Your task to perform on an android device: turn on showing notifications on the lock screen Image 0: 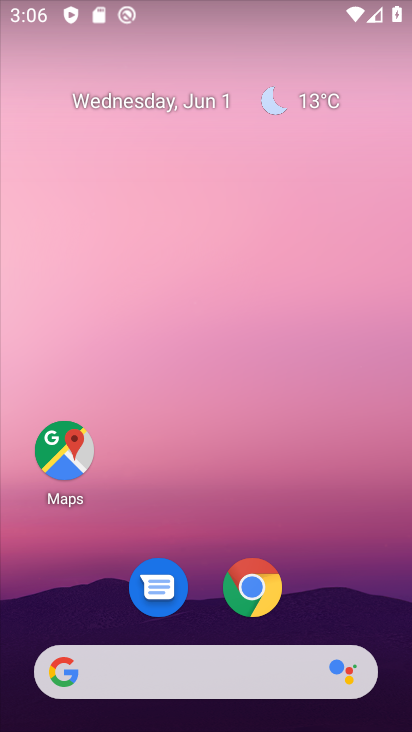
Step 0: drag from (340, 566) to (219, 2)
Your task to perform on an android device: turn on showing notifications on the lock screen Image 1: 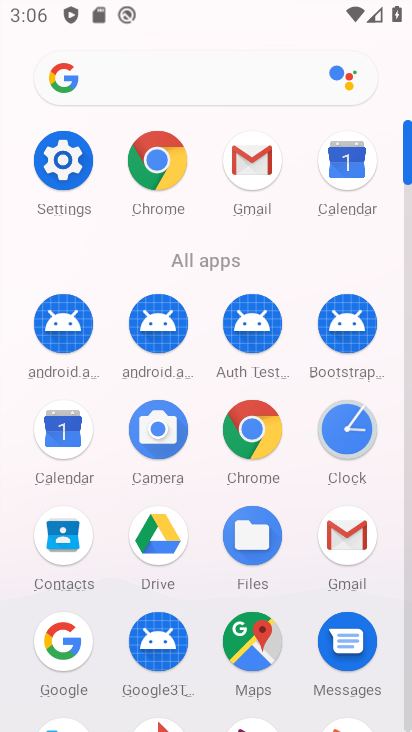
Step 1: click (58, 157)
Your task to perform on an android device: turn on showing notifications on the lock screen Image 2: 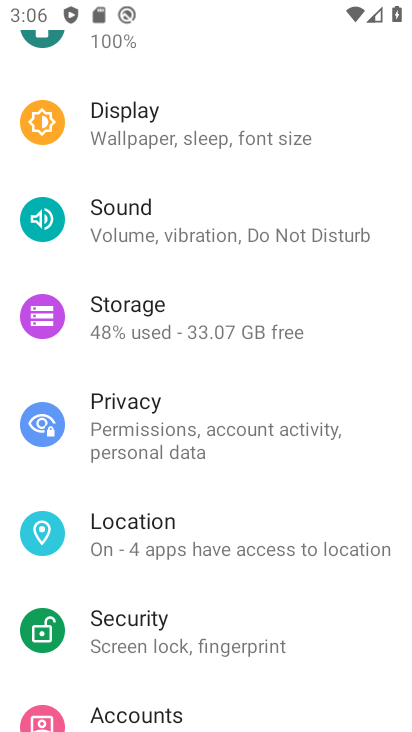
Step 2: drag from (268, 154) to (210, 592)
Your task to perform on an android device: turn on showing notifications on the lock screen Image 3: 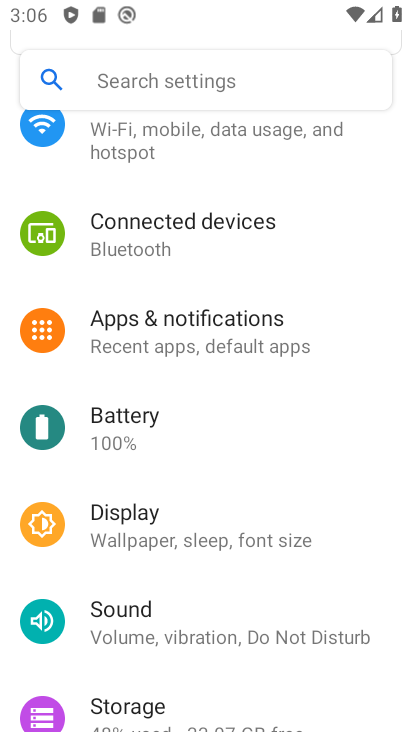
Step 3: click (183, 311)
Your task to perform on an android device: turn on showing notifications on the lock screen Image 4: 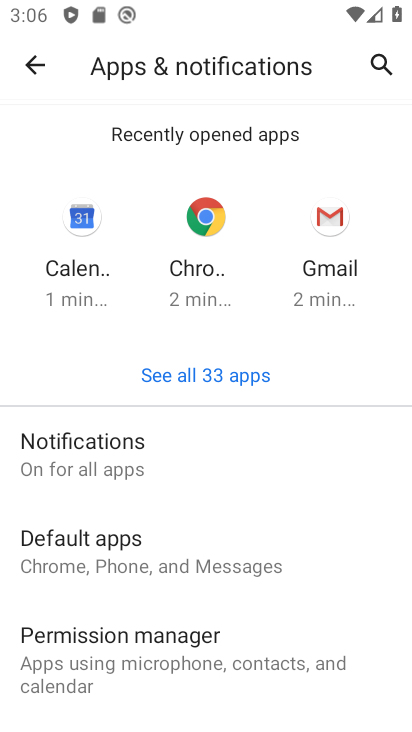
Step 4: drag from (231, 549) to (277, 123)
Your task to perform on an android device: turn on showing notifications on the lock screen Image 5: 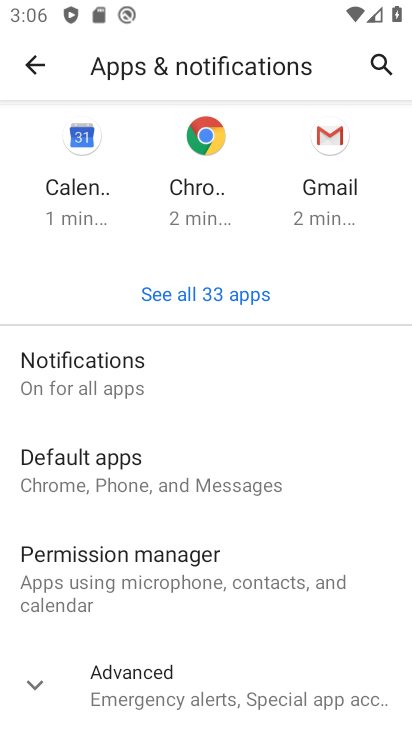
Step 5: click (42, 683)
Your task to perform on an android device: turn on showing notifications on the lock screen Image 6: 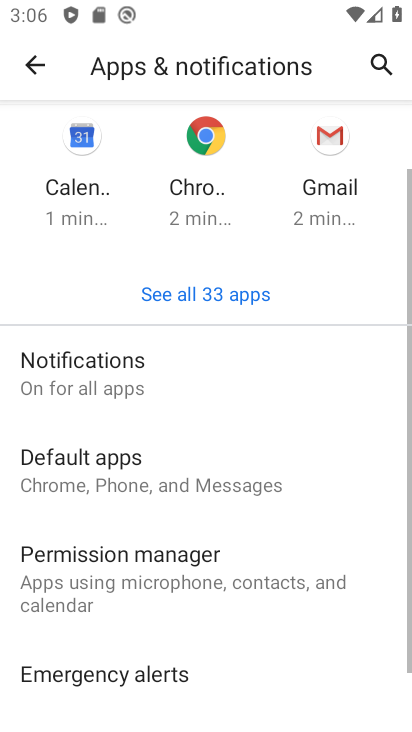
Step 6: click (180, 356)
Your task to perform on an android device: turn on showing notifications on the lock screen Image 7: 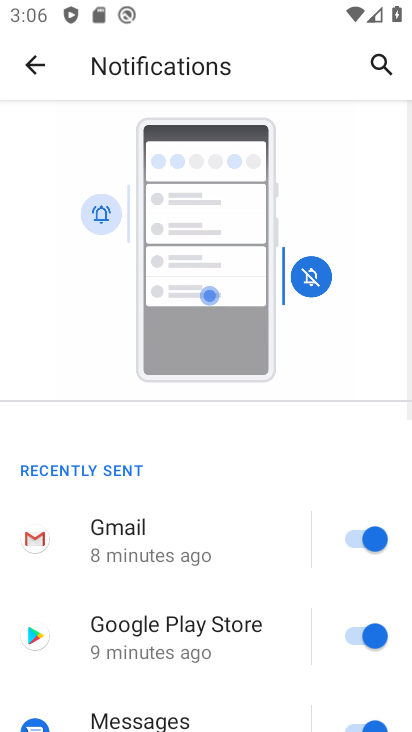
Step 7: drag from (202, 565) to (241, 140)
Your task to perform on an android device: turn on showing notifications on the lock screen Image 8: 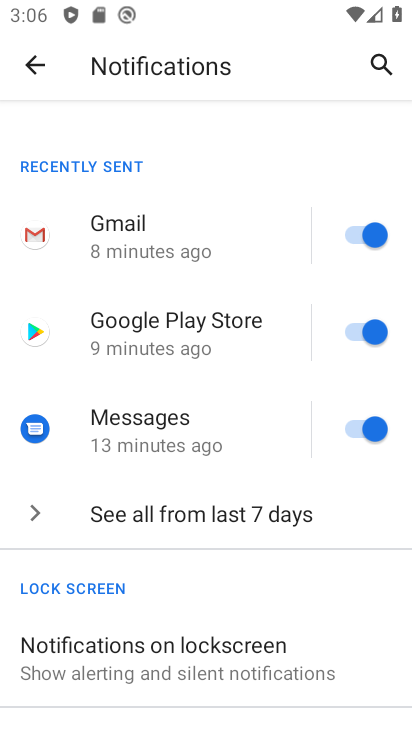
Step 8: drag from (239, 570) to (240, 171)
Your task to perform on an android device: turn on showing notifications on the lock screen Image 9: 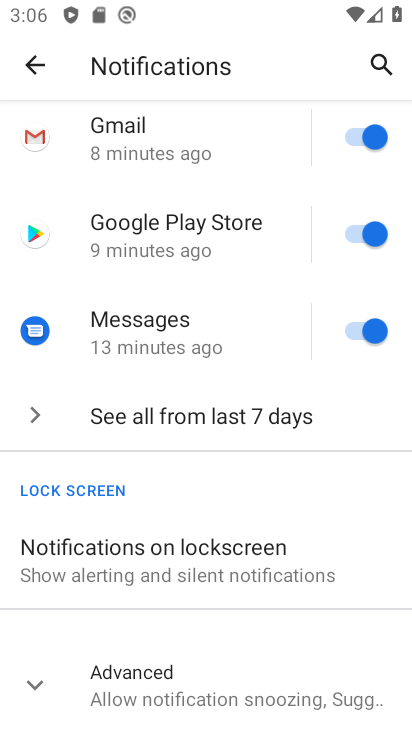
Step 9: drag from (233, 591) to (233, 257)
Your task to perform on an android device: turn on showing notifications on the lock screen Image 10: 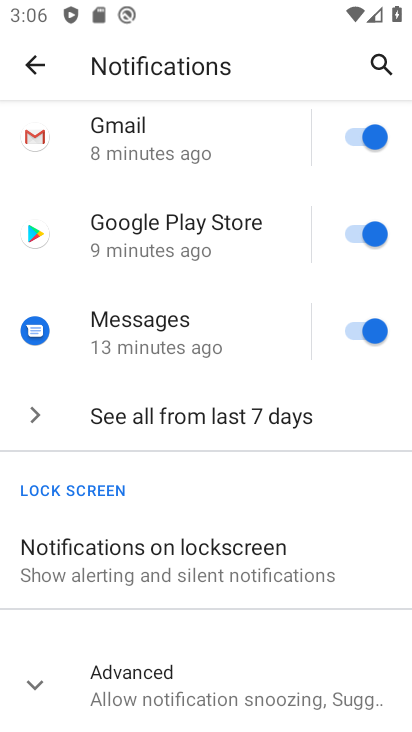
Step 10: click (60, 652)
Your task to perform on an android device: turn on showing notifications on the lock screen Image 11: 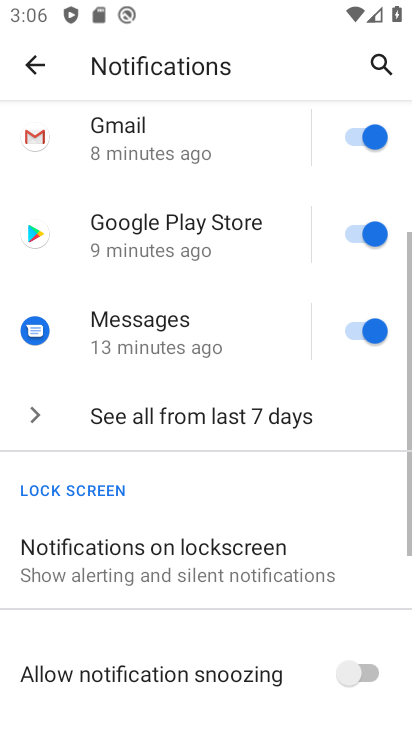
Step 11: drag from (224, 560) to (252, 134)
Your task to perform on an android device: turn on showing notifications on the lock screen Image 12: 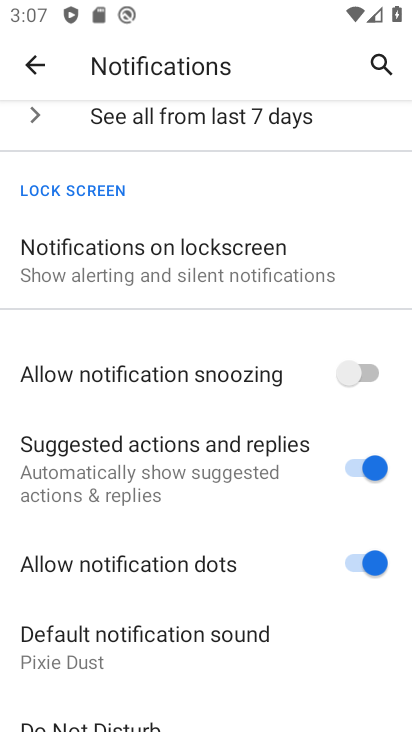
Step 12: click (154, 258)
Your task to perform on an android device: turn on showing notifications on the lock screen Image 13: 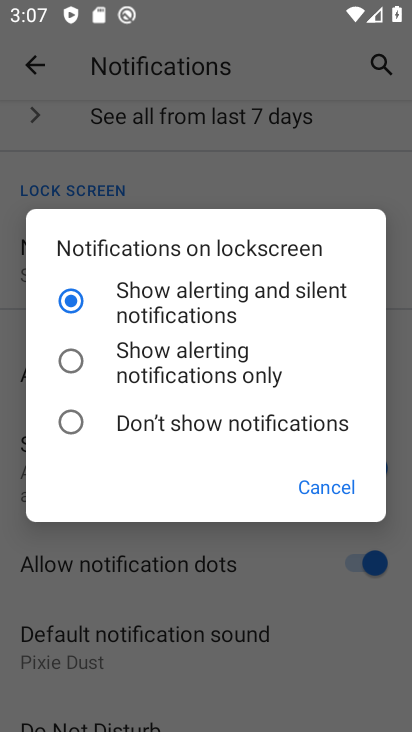
Step 13: click (132, 311)
Your task to perform on an android device: turn on showing notifications on the lock screen Image 14: 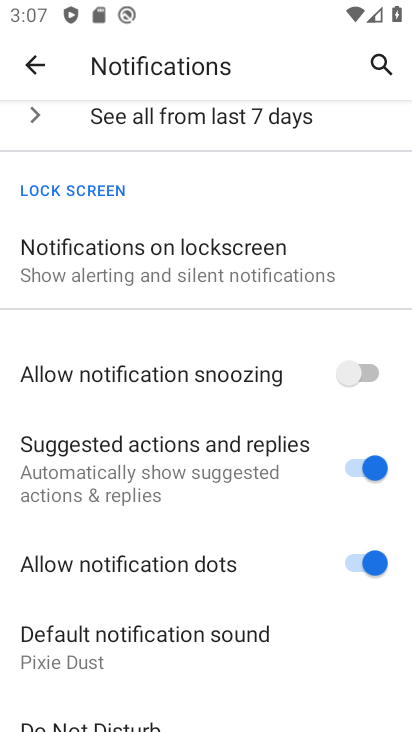
Step 14: task complete